Your task to perform on an android device: Open wifi settings Image 0: 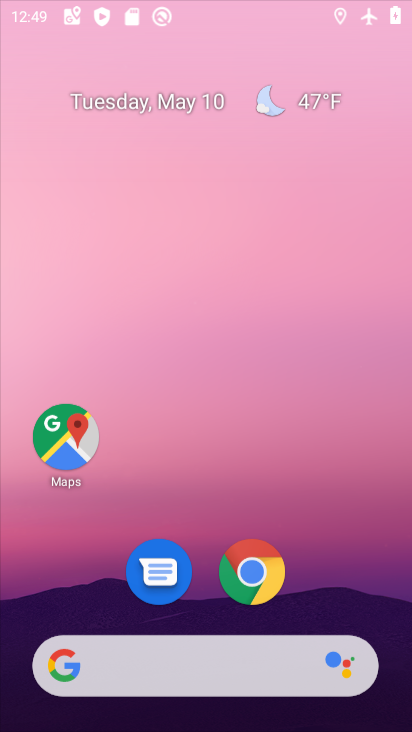
Step 0: drag from (231, 526) to (154, 82)
Your task to perform on an android device: Open wifi settings Image 1: 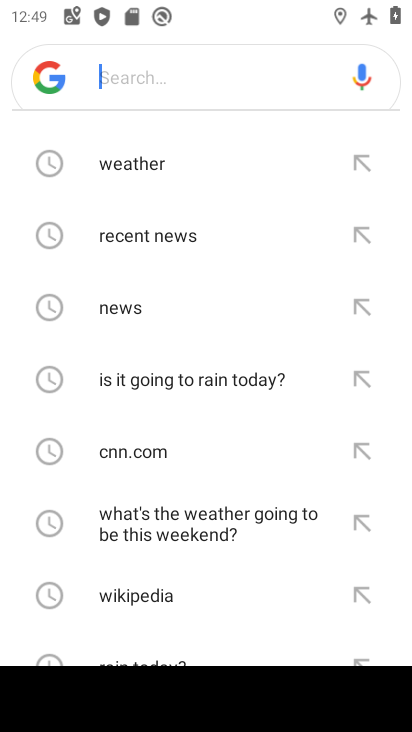
Step 1: press home button
Your task to perform on an android device: Open wifi settings Image 2: 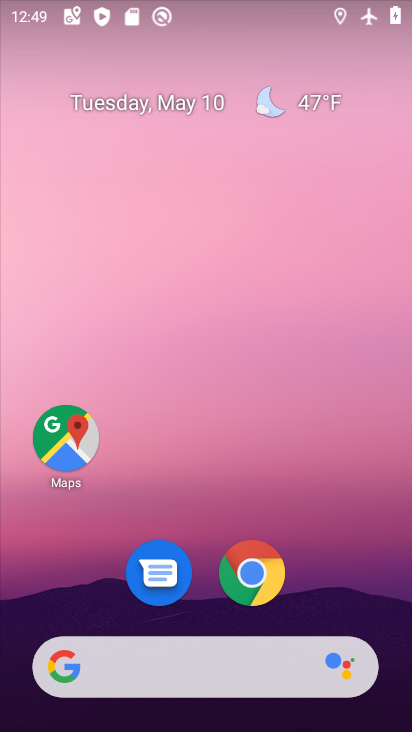
Step 2: drag from (194, 614) to (185, 167)
Your task to perform on an android device: Open wifi settings Image 3: 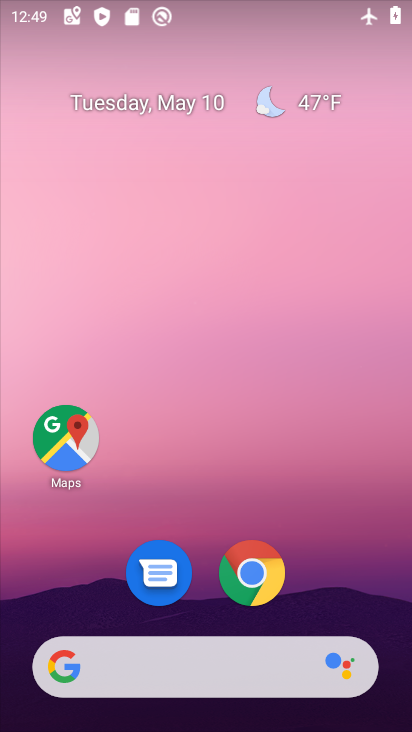
Step 3: drag from (214, 617) to (219, 201)
Your task to perform on an android device: Open wifi settings Image 4: 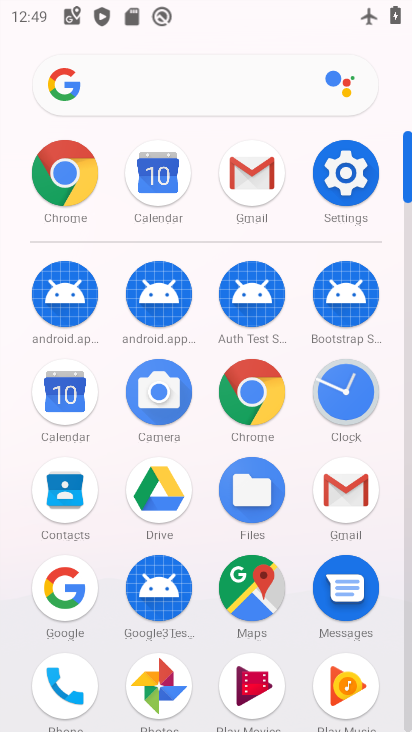
Step 4: click (345, 181)
Your task to perform on an android device: Open wifi settings Image 5: 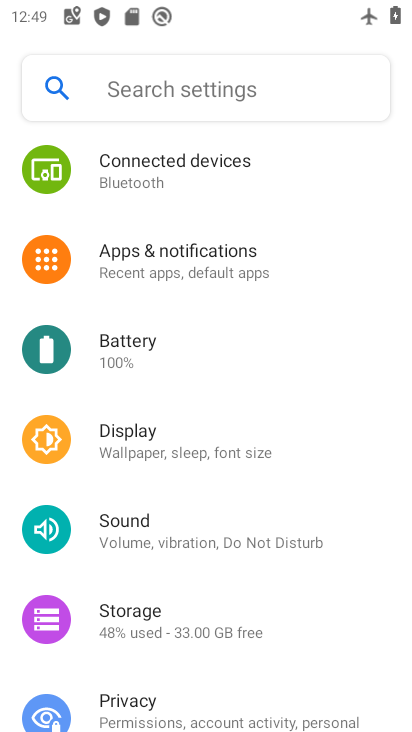
Step 5: drag from (164, 214) to (145, 731)
Your task to perform on an android device: Open wifi settings Image 6: 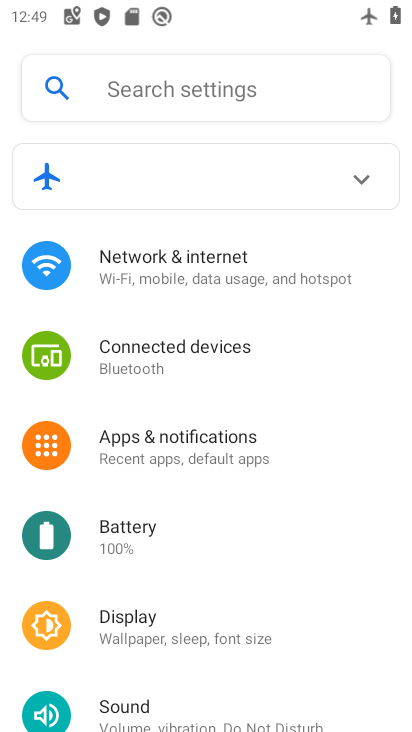
Step 6: click (173, 257)
Your task to perform on an android device: Open wifi settings Image 7: 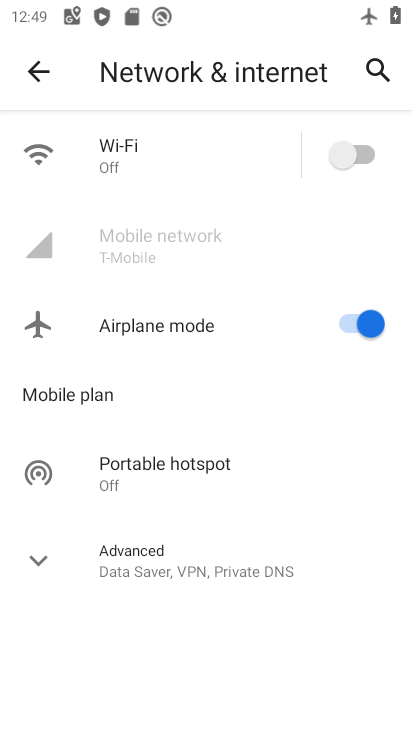
Step 7: click (180, 158)
Your task to perform on an android device: Open wifi settings Image 8: 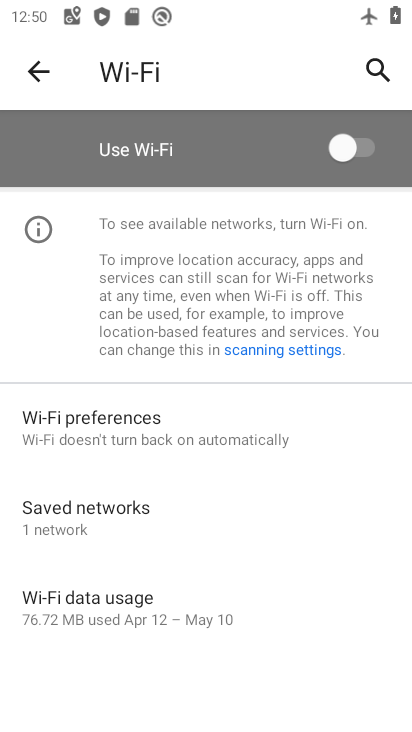
Step 8: task complete